Your task to perform on an android device: Clear all items from cart on ebay. Add "bose soundlink" to the cart on ebay Image 0: 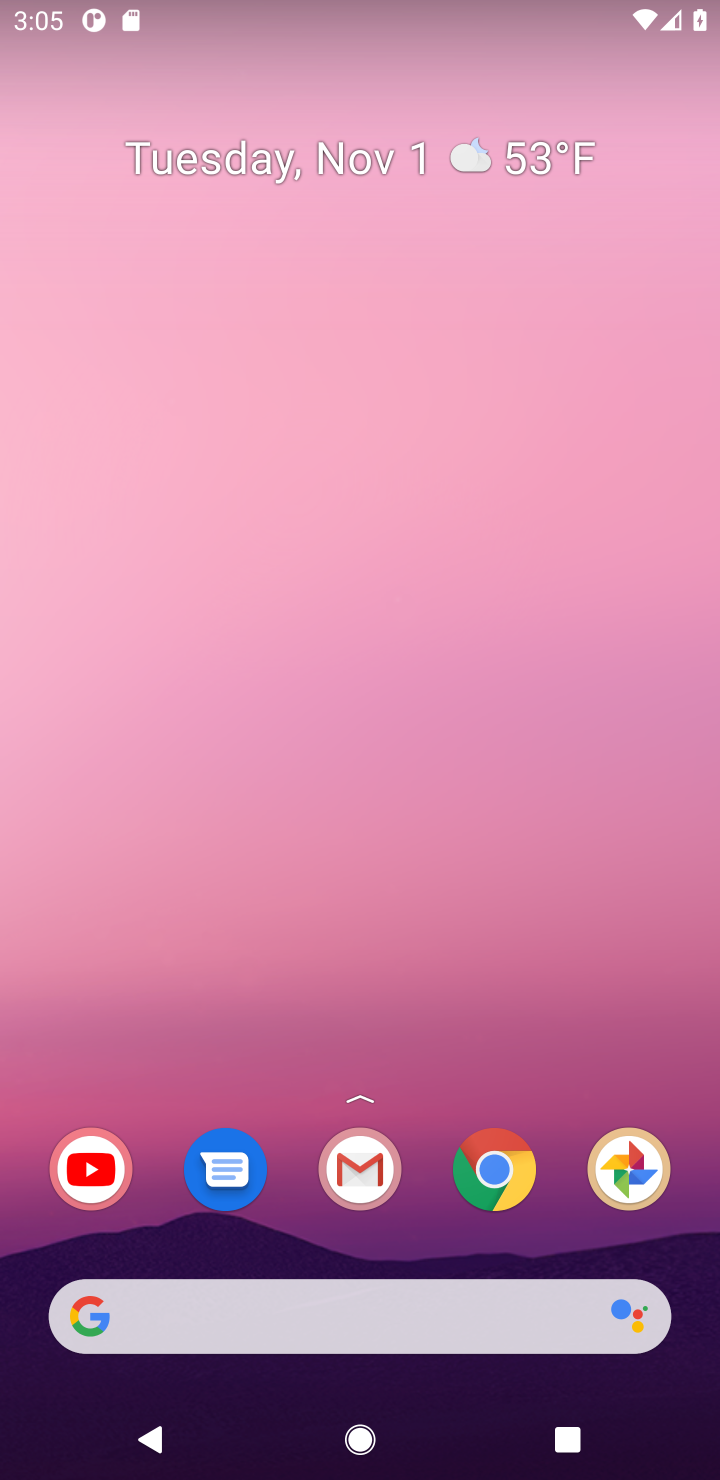
Step 0: press home button
Your task to perform on an android device: Clear all items from cart on ebay. Add "bose soundlink" to the cart on ebay Image 1: 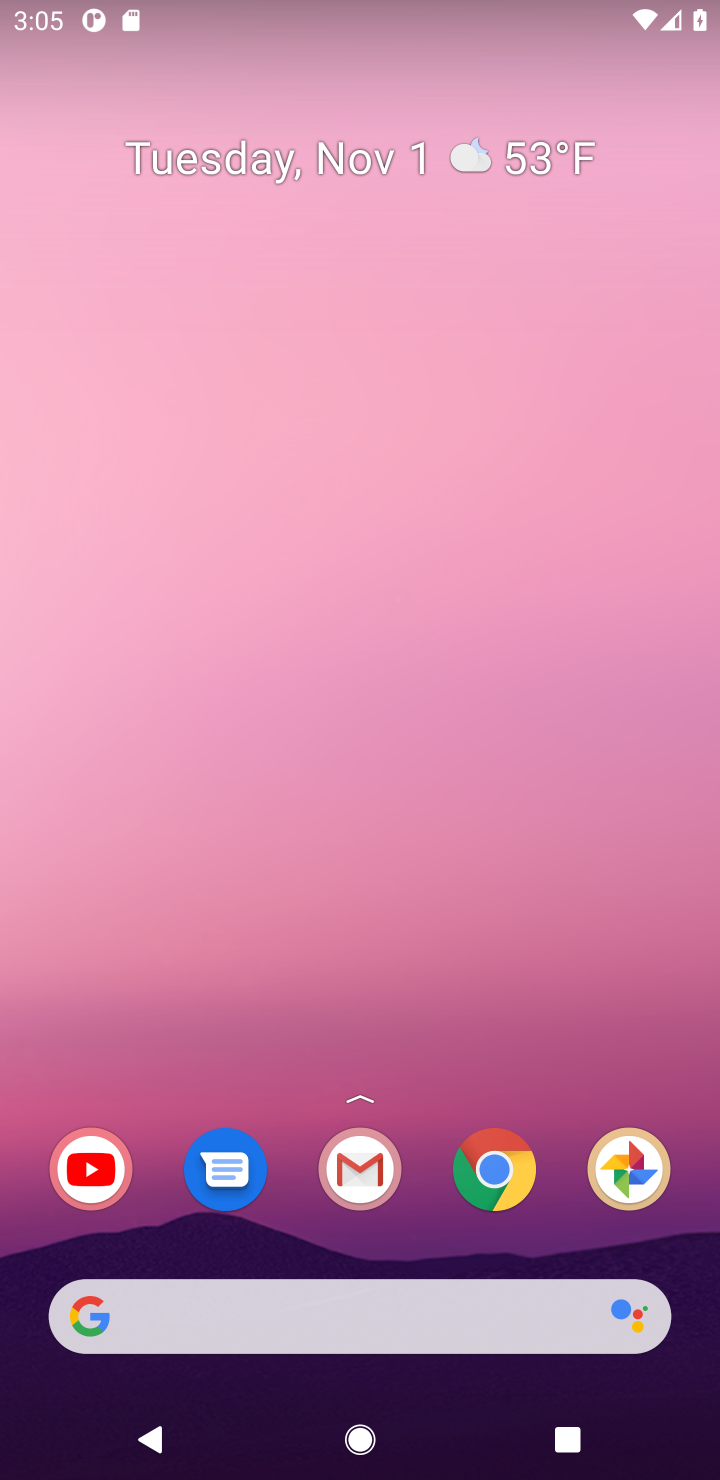
Step 1: click (414, 218)
Your task to perform on an android device: Clear all items from cart on ebay. Add "bose soundlink" to the cart on ebay Image 2: 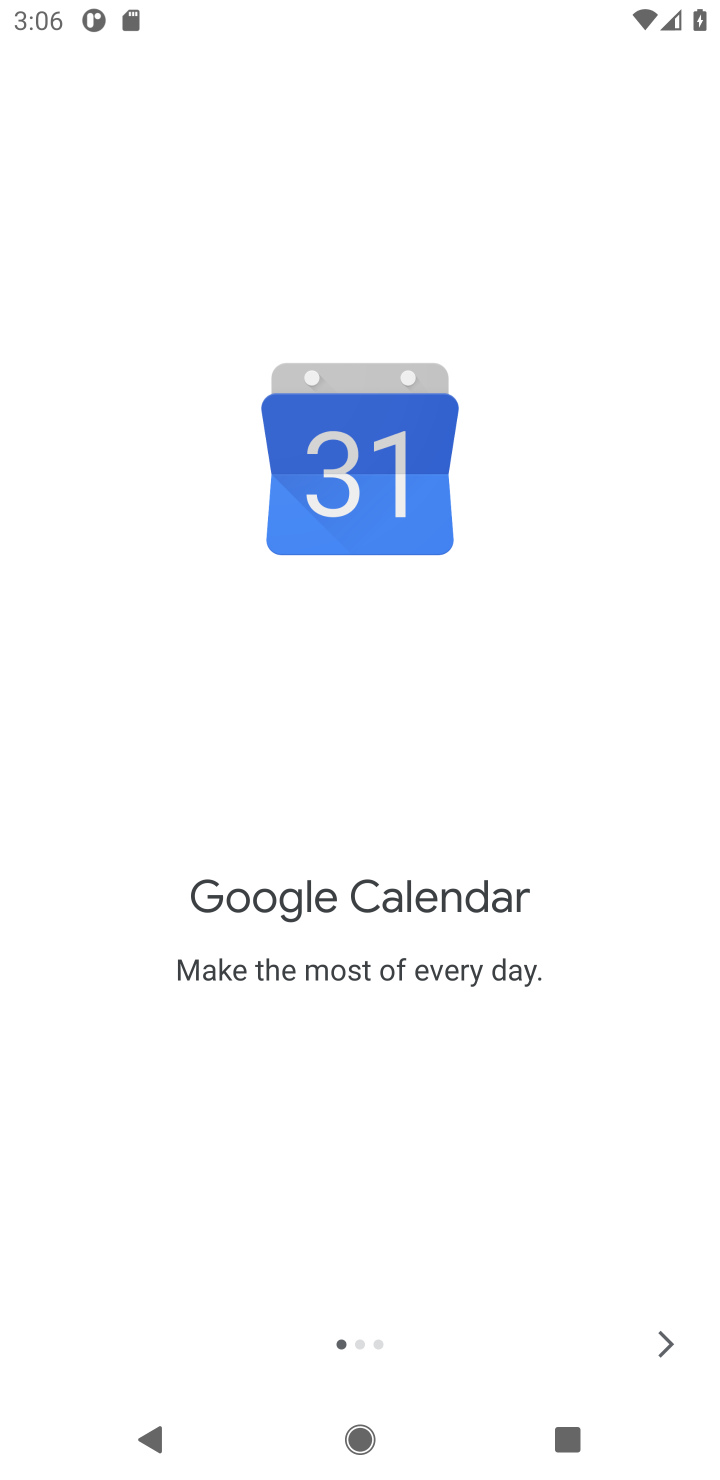
Step 2: press home button
Your task to perform on an android device: Clear all items from cart on ebay. Add "bose soundlink" to the cart on ebay Image 3: 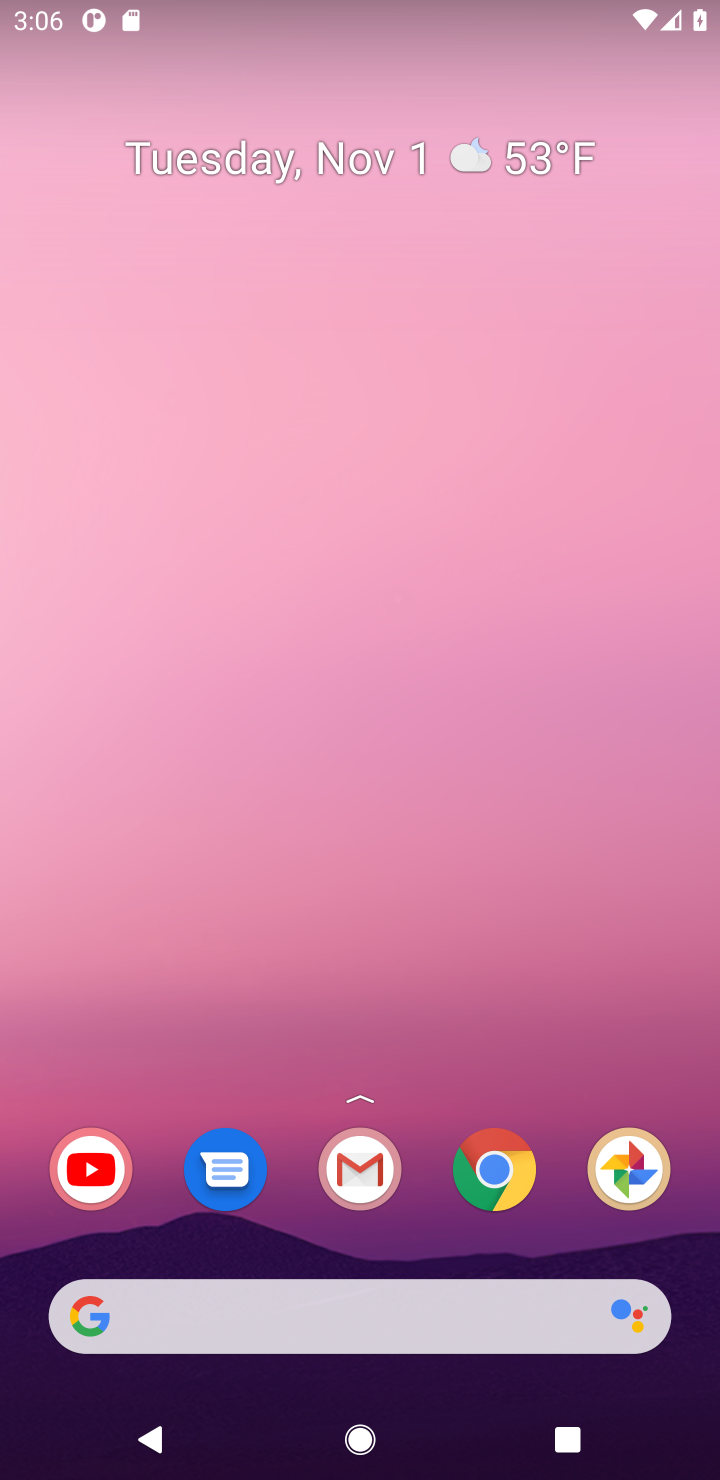
Step 3: drag from (429, 1231) to (481, 283)
Your task to perform on an android device: Clear all items from cart on ebay. Add "bose soundlink" to the cart on ebay Image 4: 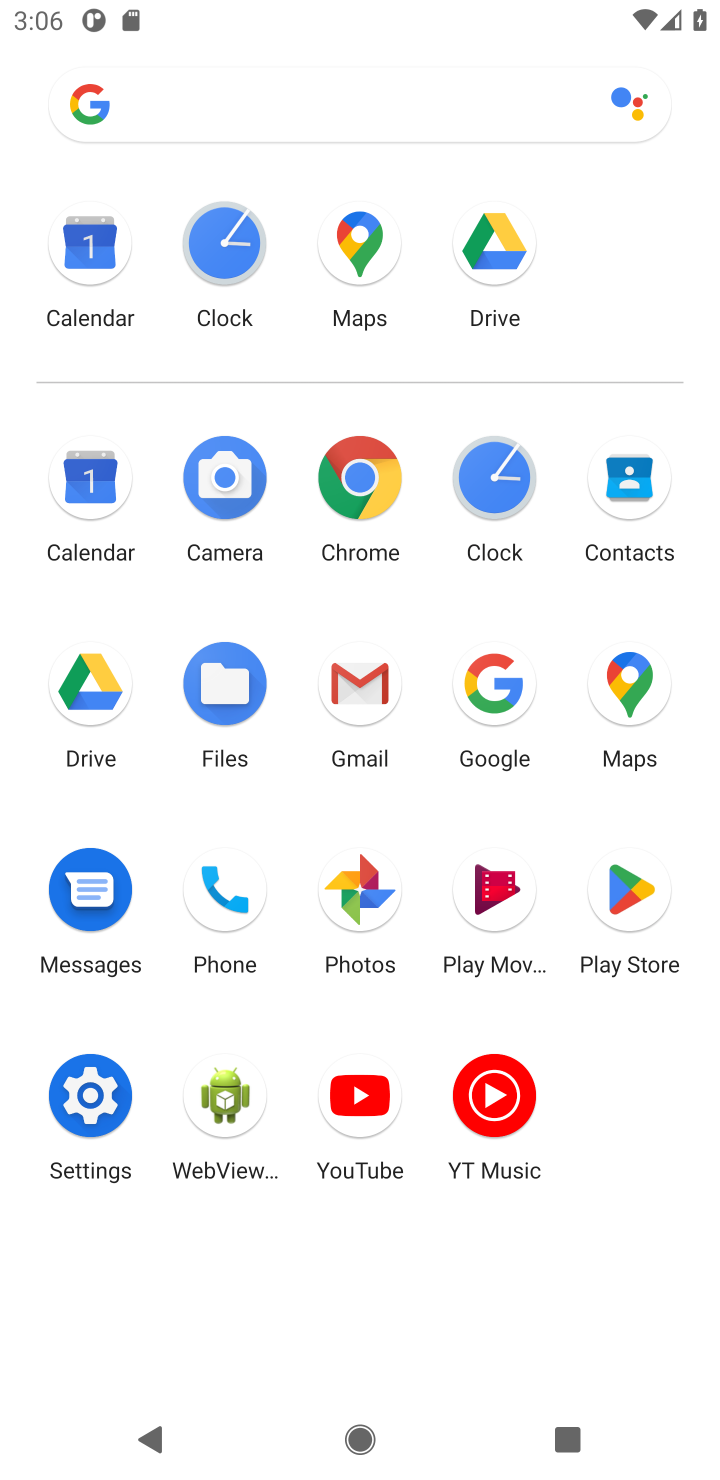
Step 4: click (361, 470)
Your task to perform on an android device: Clear all items from cart on ebay. Add "bose soundlink" to the cart on ebay Image 5: 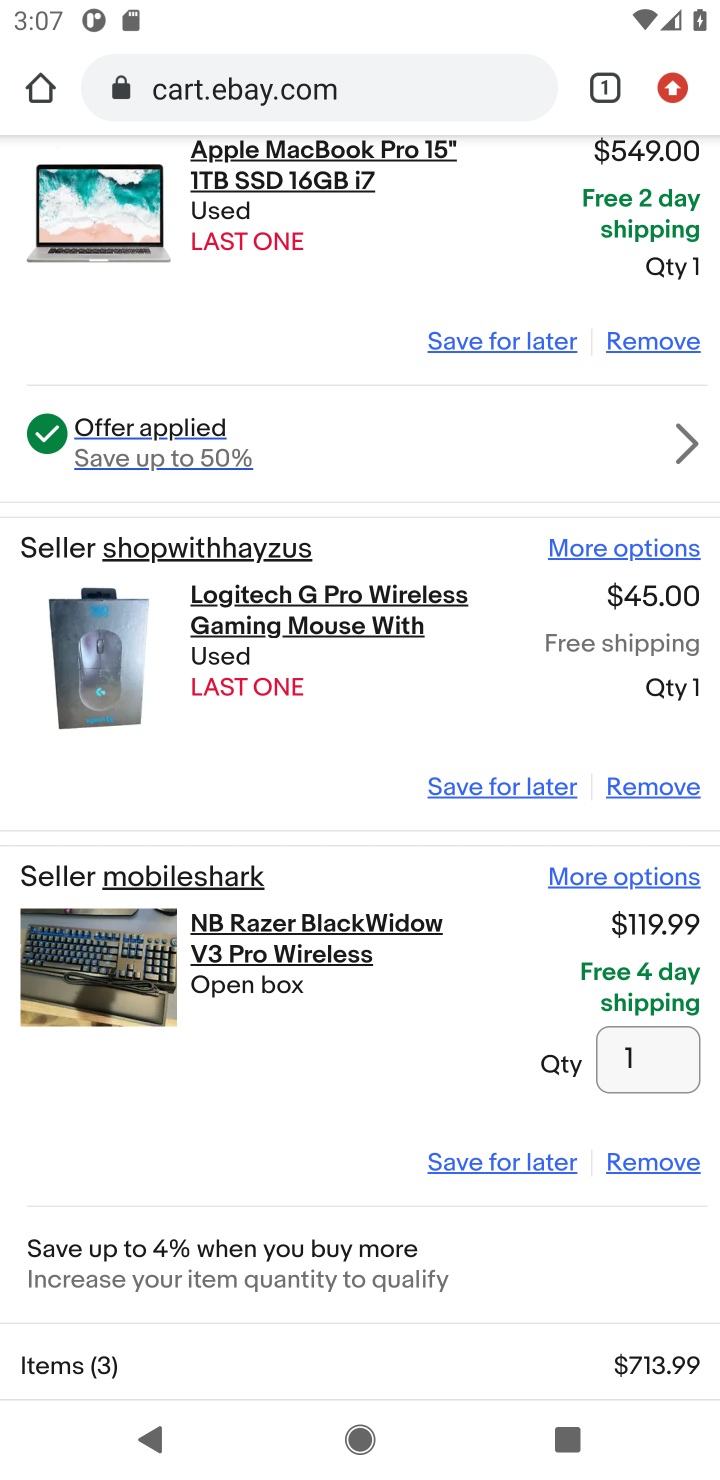
Step 5: drag from (413, 457) to (442, 1203)
Your task to perform on an android device: Clear all items from cart on ebay. Add "bose soundlink" to the cart on ebay Image 6: 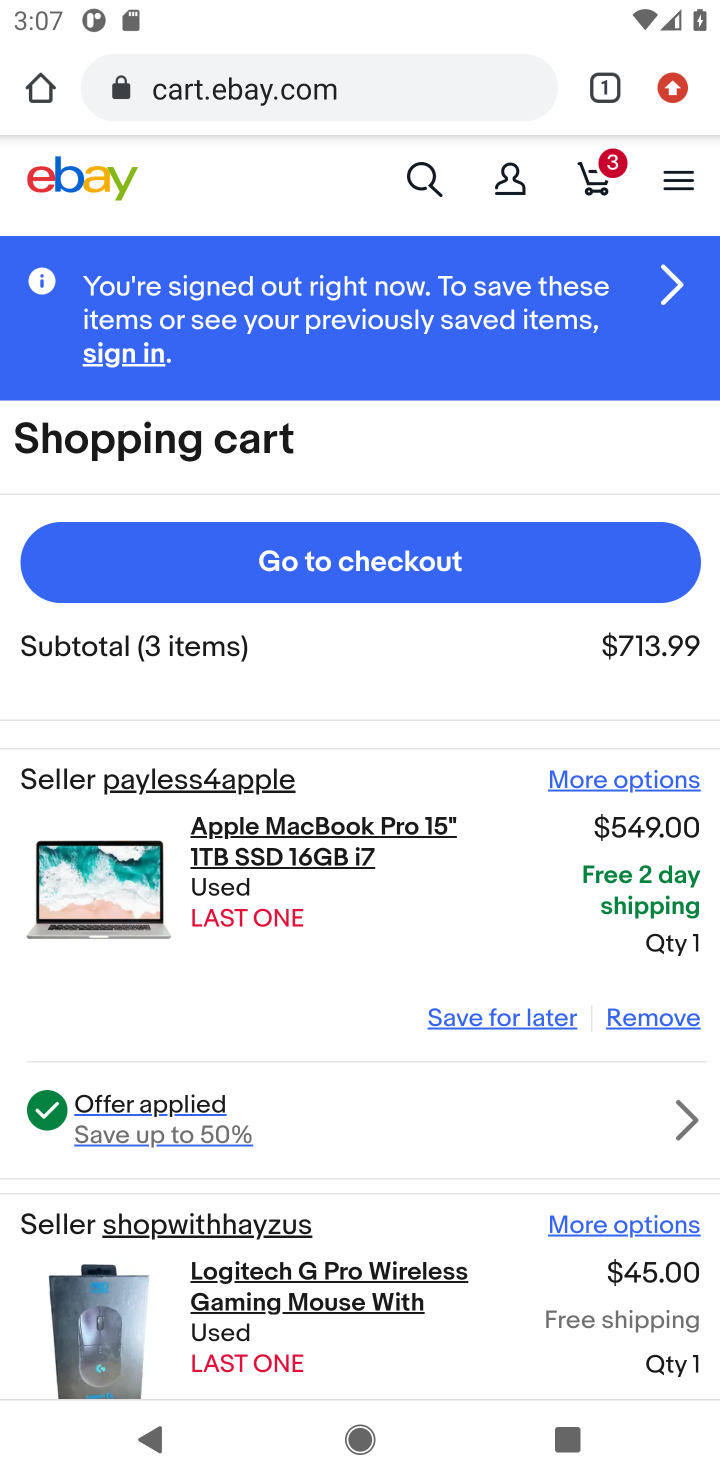
Step 6: click (416, 171)
Your task to perform on an android device: Clear all items from cart on ebay. Add "bose soundlink" to the cart on ebay Image 7: 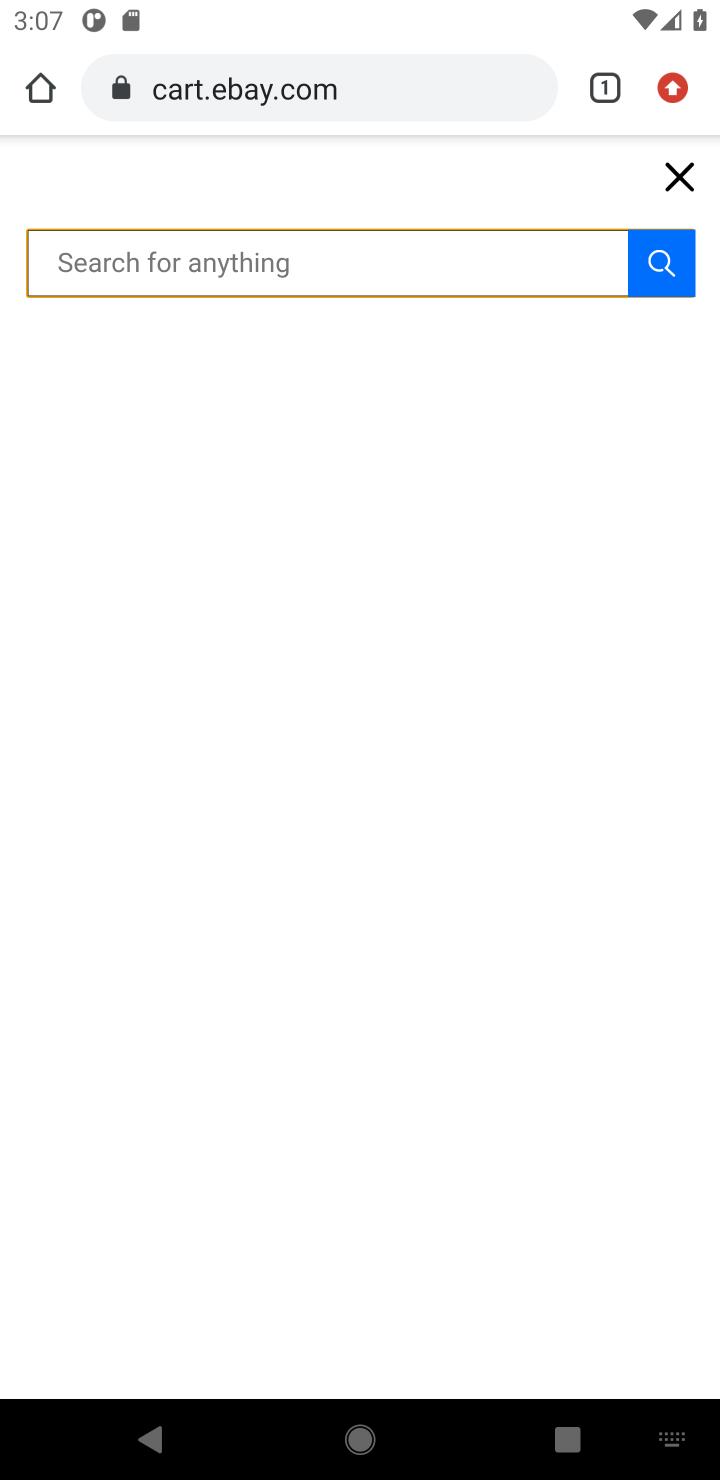
Step 7: click (689, 181)
Your task to perform on an android device: Clear all items from cart on ebay. Add "bose soundlink" to the cart on ebay Image 8: 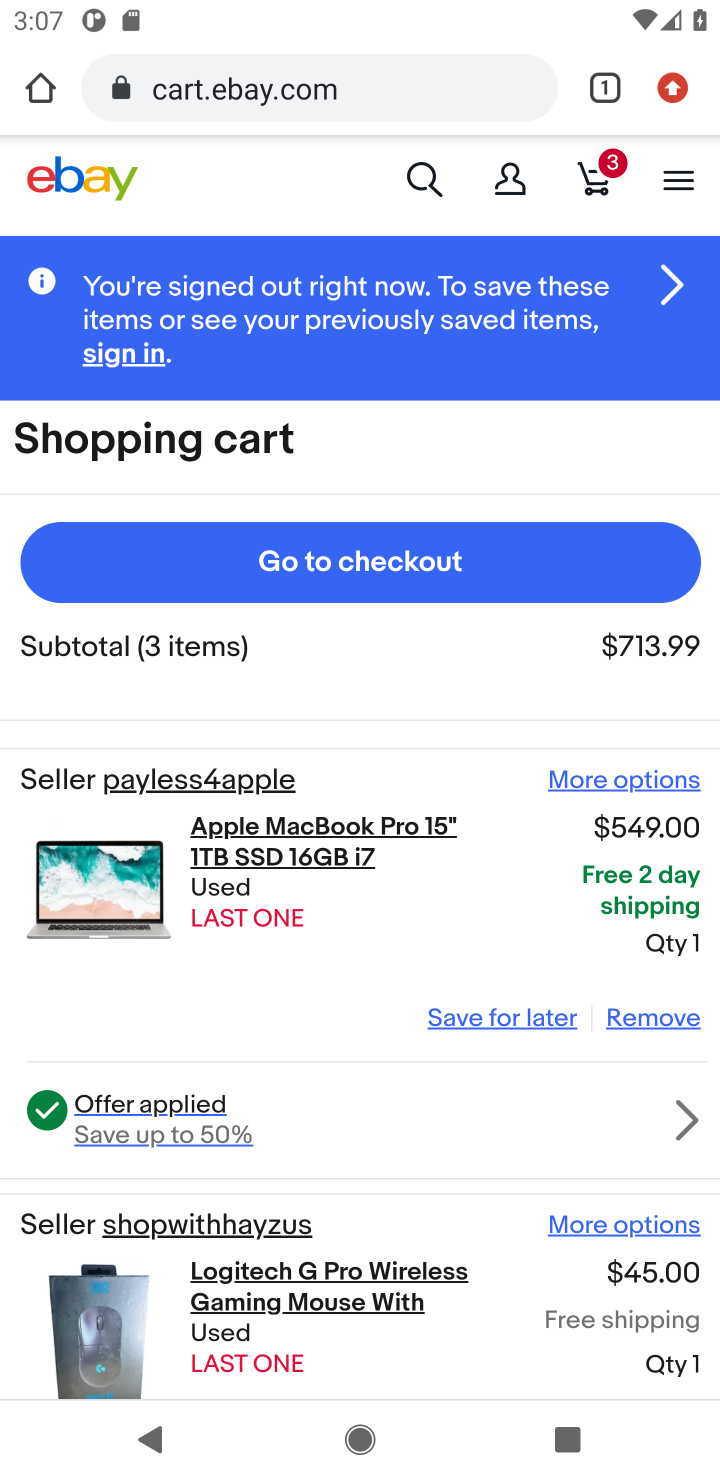
Step 8: click (598, 164)
Your task to perform on an android device: Clear all items from cart on ebay. Add "bose soundlink" to the cart on ebay Image 9: 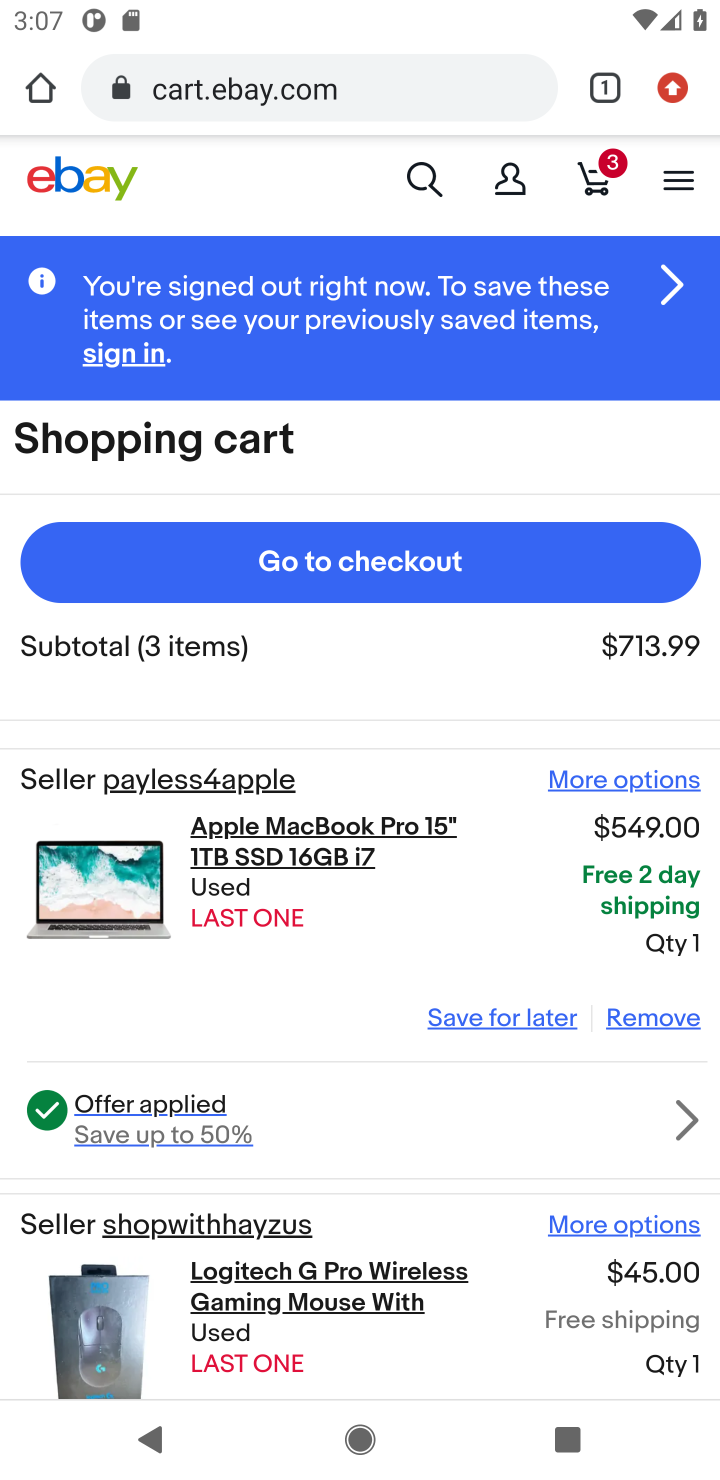
Step 9: click (676, 1003)
Your task to perform on an android device: Clear all items from cart on ebay. Add "bose soundlink" to the cart on ebay Image 10: 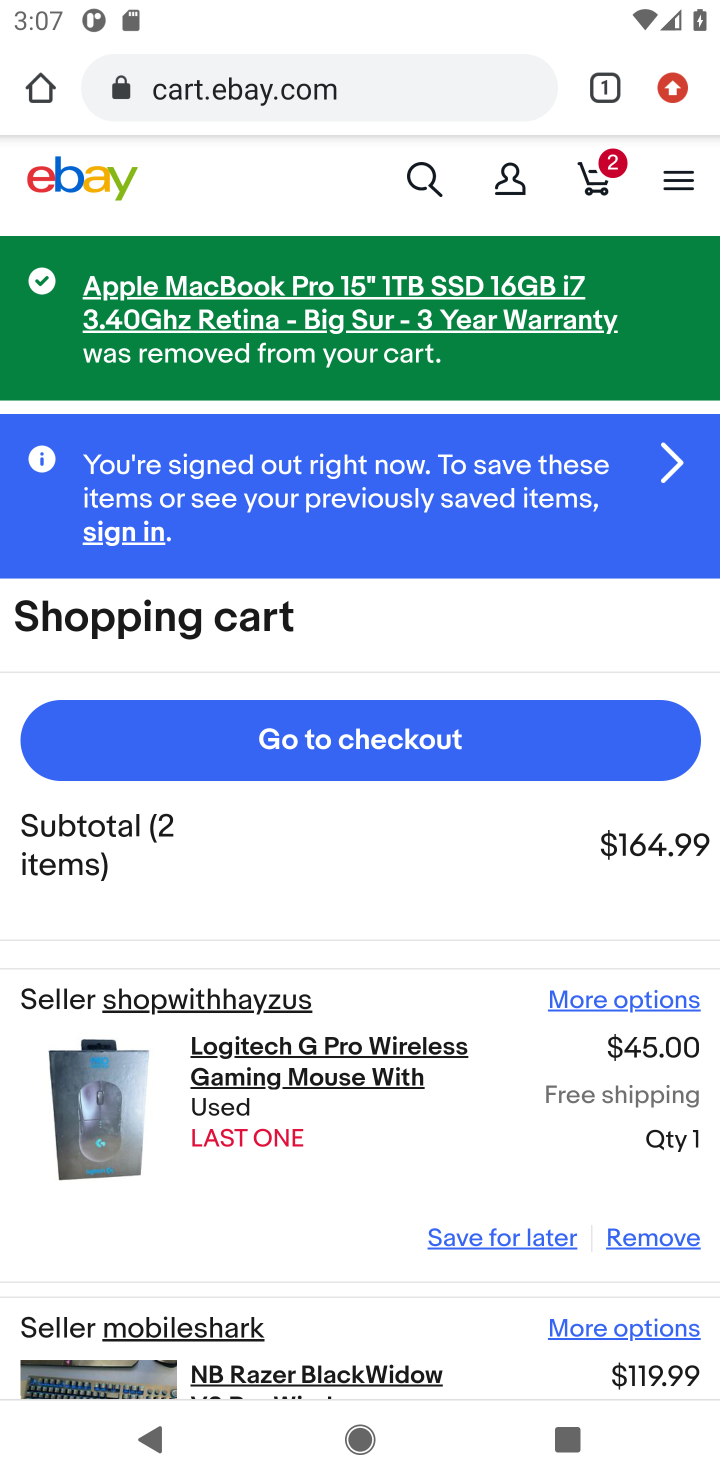
Step 10: click (642, 1238)
Your task to perform on an android device: Clear all items from cart on ebay. Add "bose soundlink" to the cart on ebay Image 11: 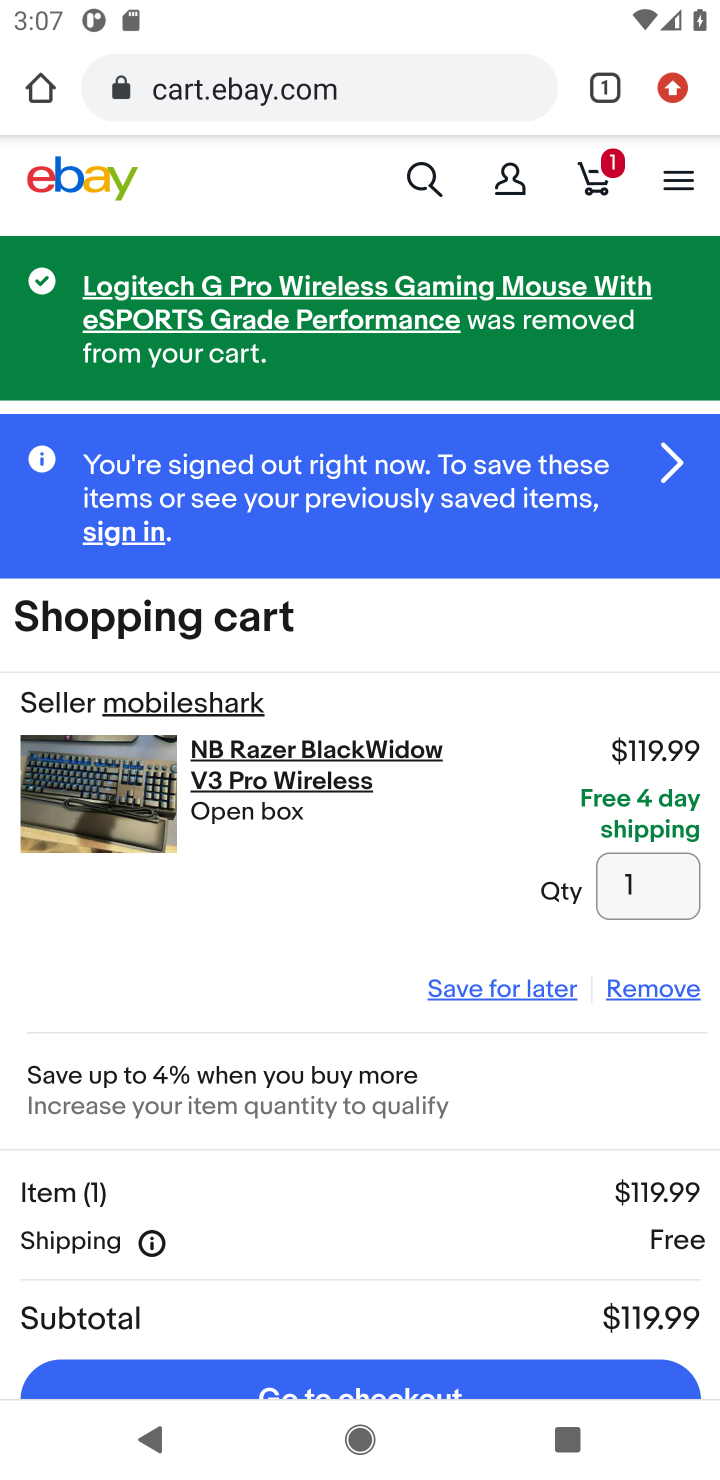
Step 11: click (646, 994)
Your task to perform on an android device: Clear all items from cart on ebay. Add "bose soundlink" to the cart on ebay Image 12: 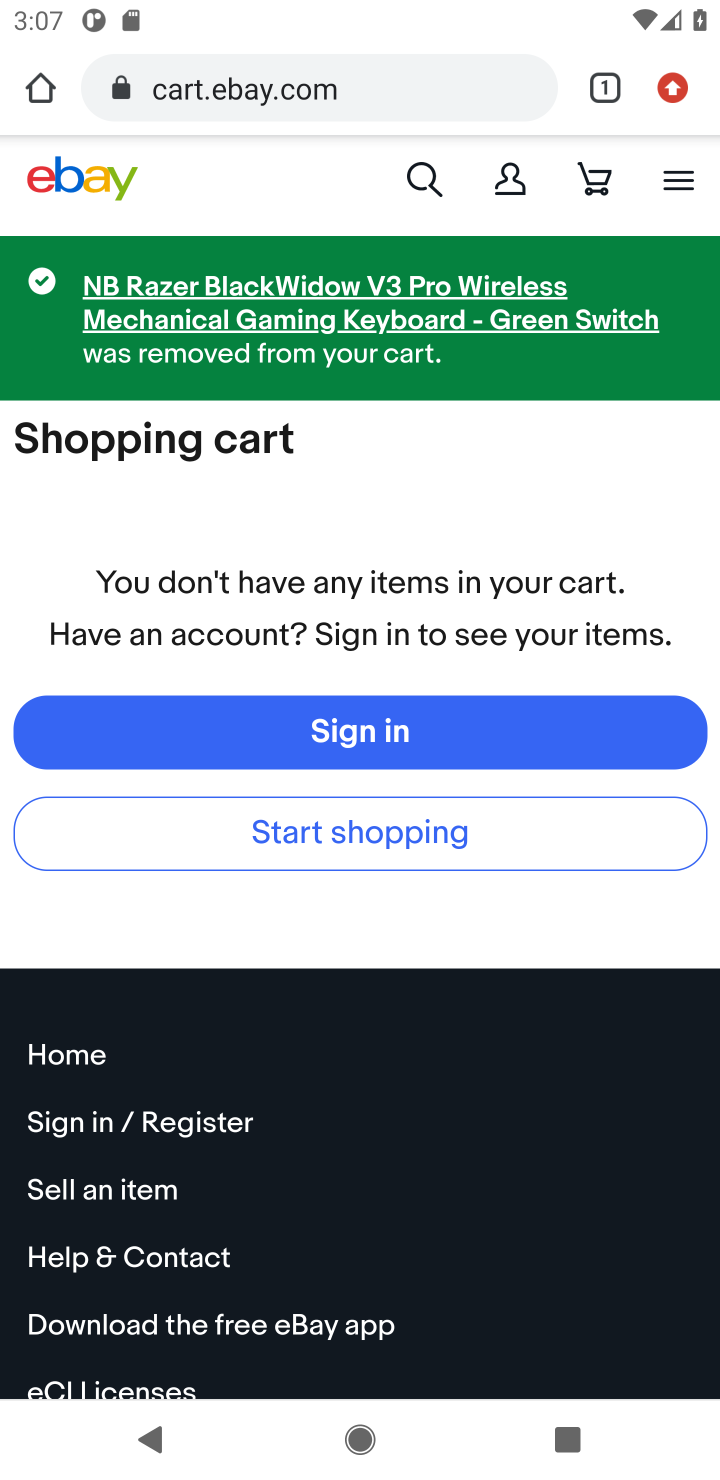
Step 12: click (416, 189)
Your task to perform on an android device: Clear all items from cart on ebay. Add "bose soundlink" to the cart on ebay Image 13: 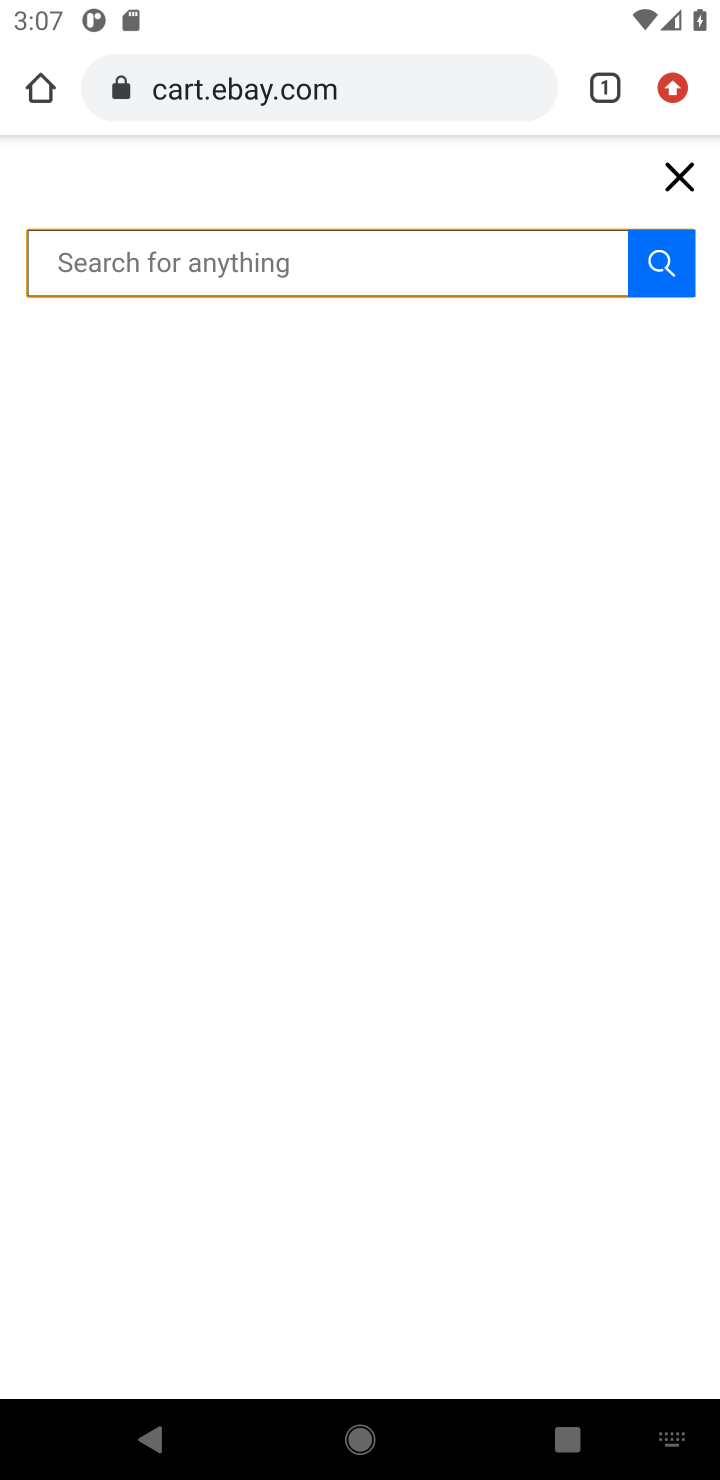
Step 13: click (93, 256)
Your task to perform on an android device: Clear all items from cart on ebay. Add "bose soundlink" to the cart on ebay Image 14: 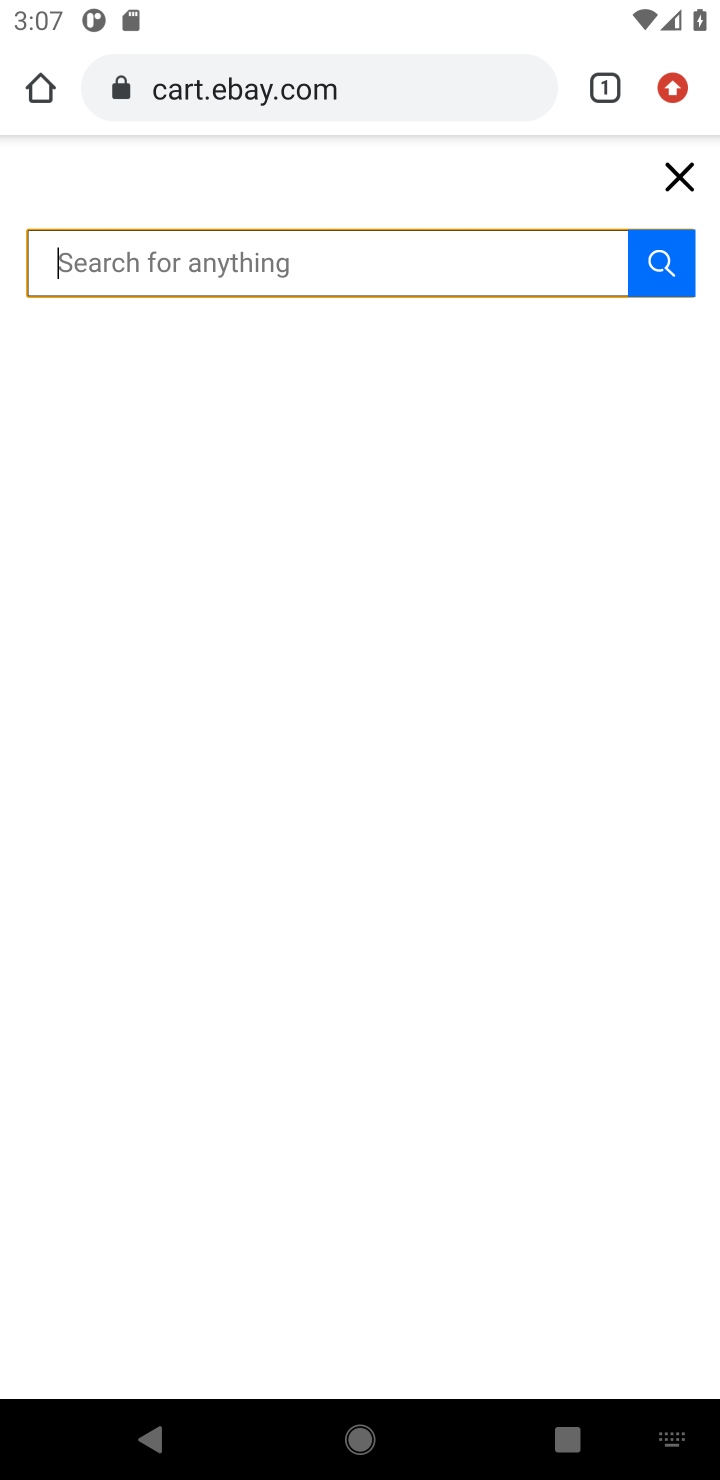
Step 14: type "bose soundlink"
Your task to perform on an android device: Clear all items from cart on ebay. Add "bose soundlink" to the cart on ebay Image 15: 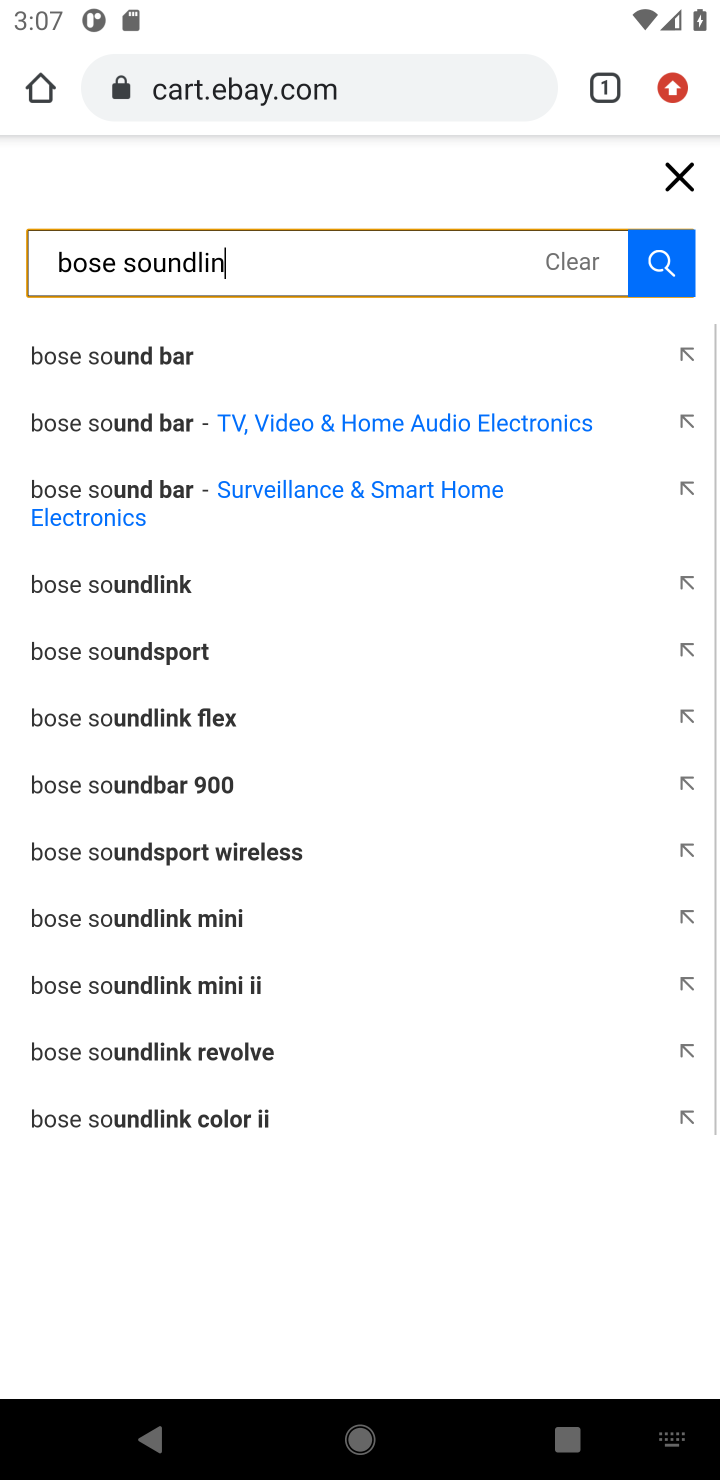
Step 15: type ""
Your task to perform on an android device: Clear all items from cart on ebay. Add "bose soundlink" to the cart on ebay Image 16: 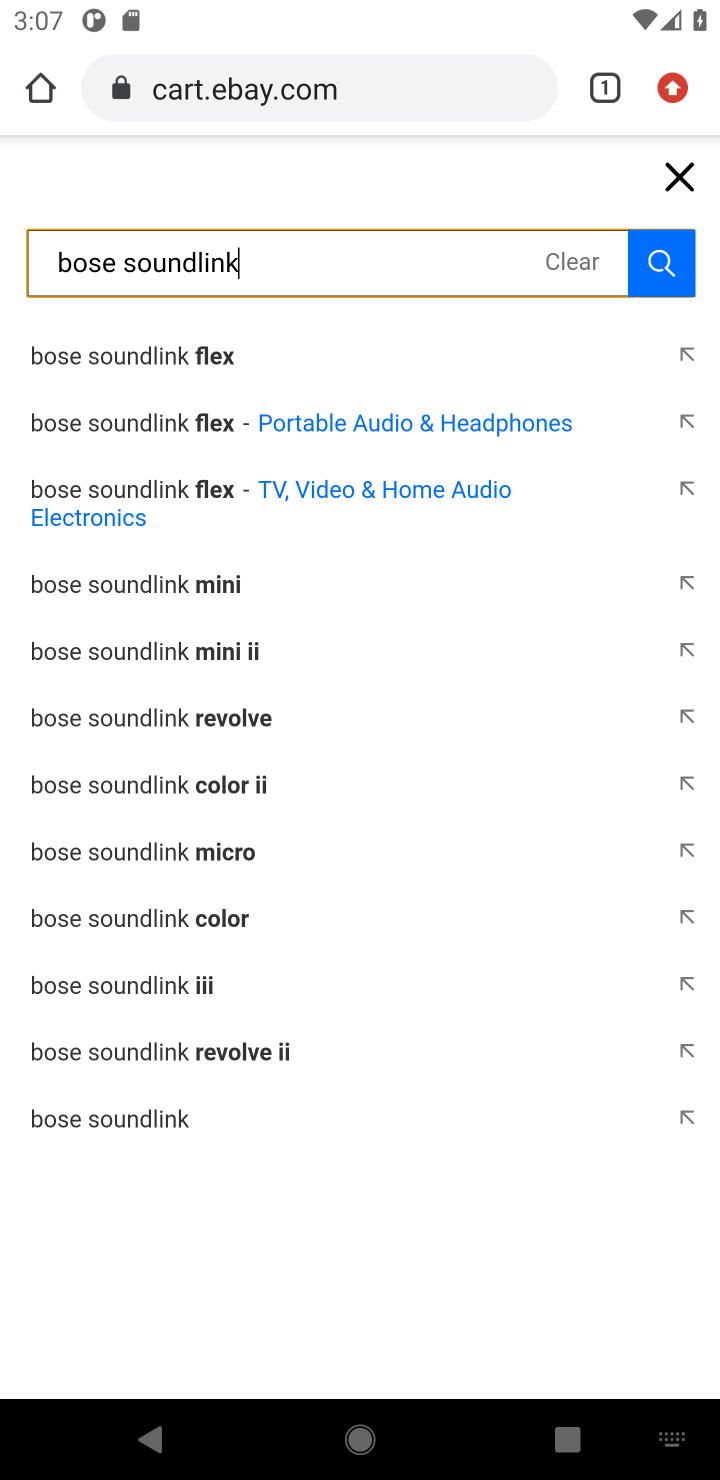
Step 16: click (199, 504)
Your task to perform on an android device: Clear all items from cart on ebay. Add "bose soundlink" to the cart on ebay Image 17: 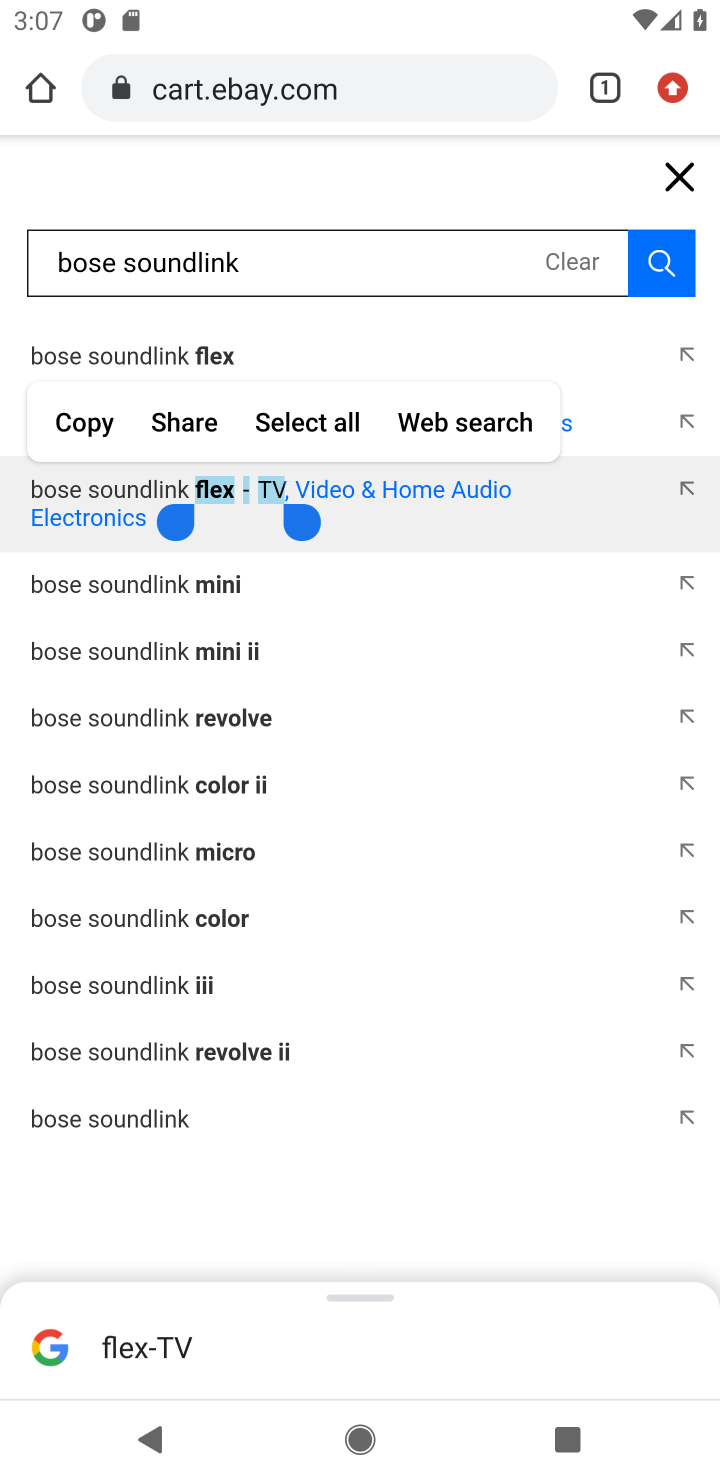
Step 17: click (76, 524)
Your task to perform on an android device: Clear all items from cart on ebay. Add "bose soundlink" to the cart on ebay Image 18: 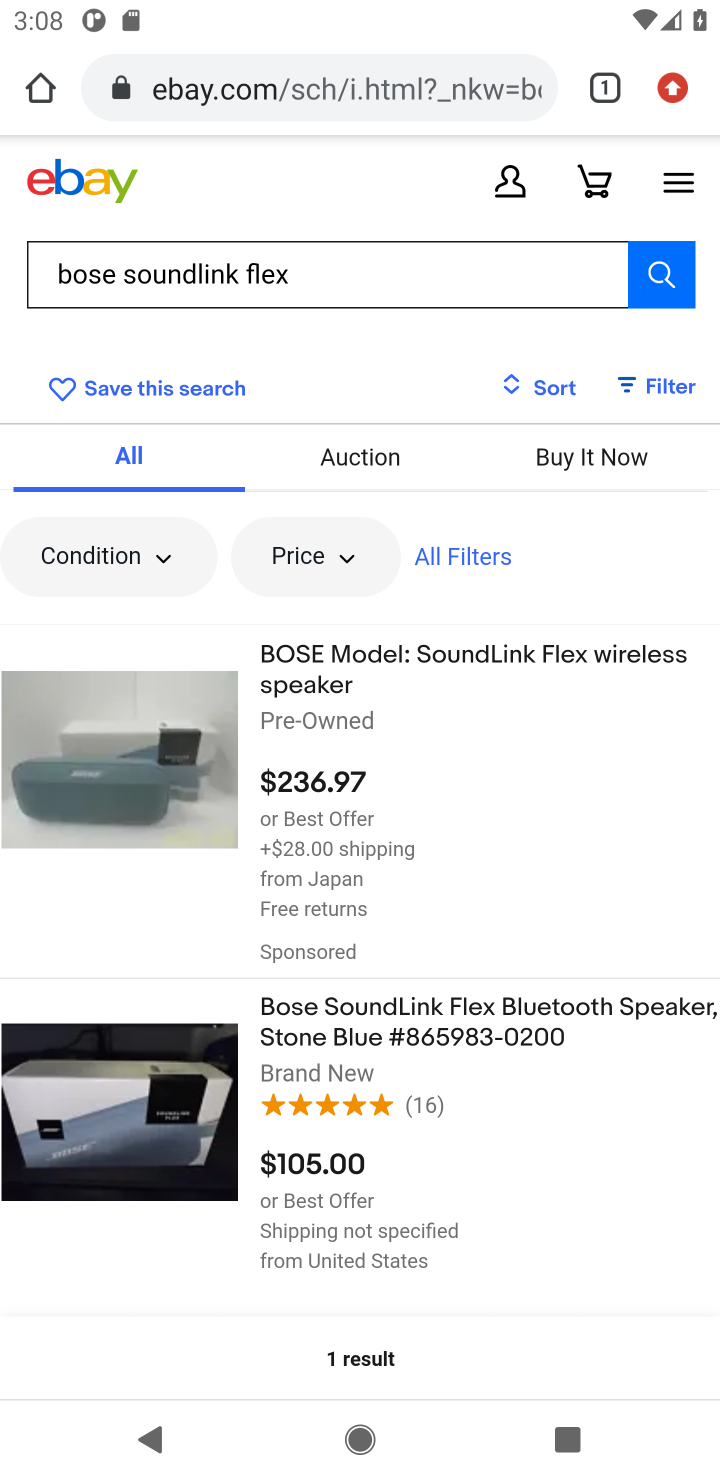
Step 18: click (416, 730)
Your task to perform on an android device: Clear all items from cart on ebay. Add "bose soundlink" to the cart on ebay Image 19: 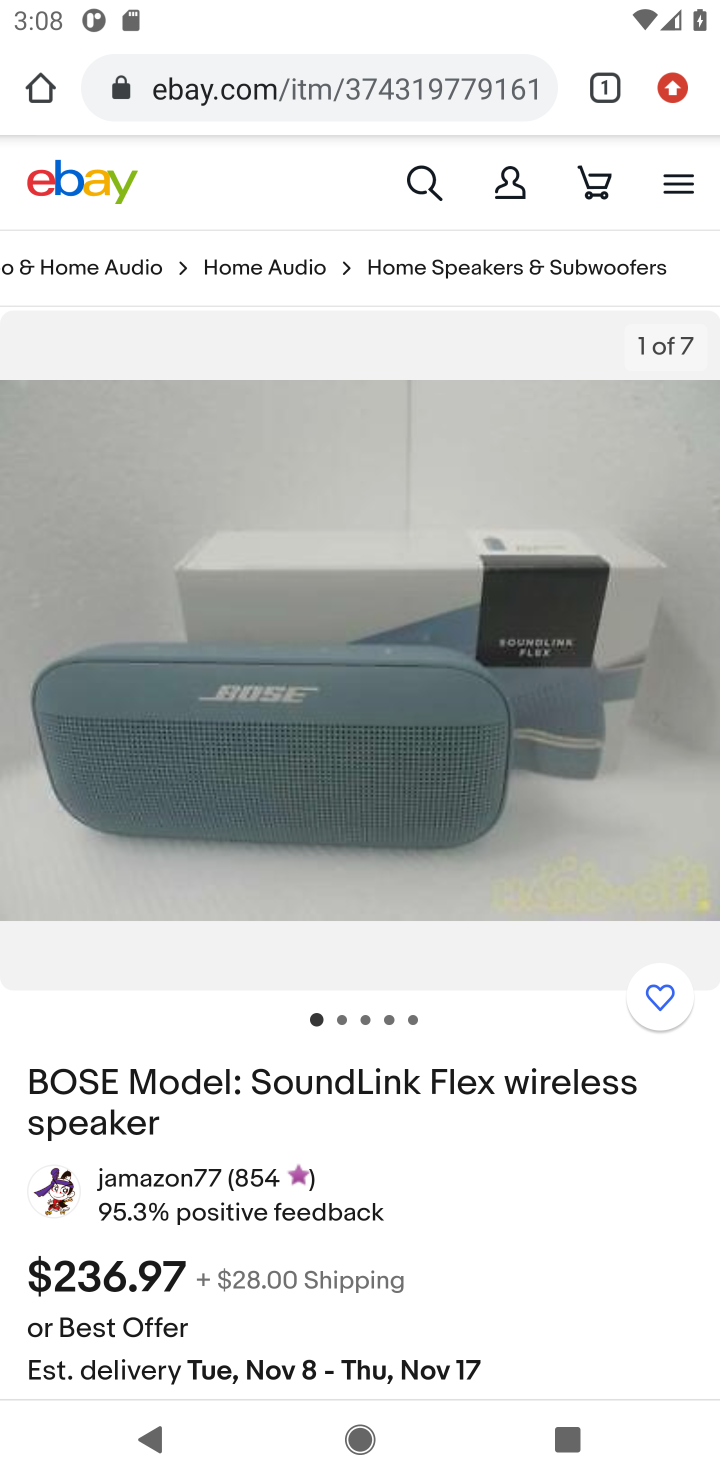
Step 19: drag from (456, 1244) to (424, 465)
Your task to perform on an android device: Clear all items from cart on ebay. Add "bose soundlink" to the cart on ebay Image 20: 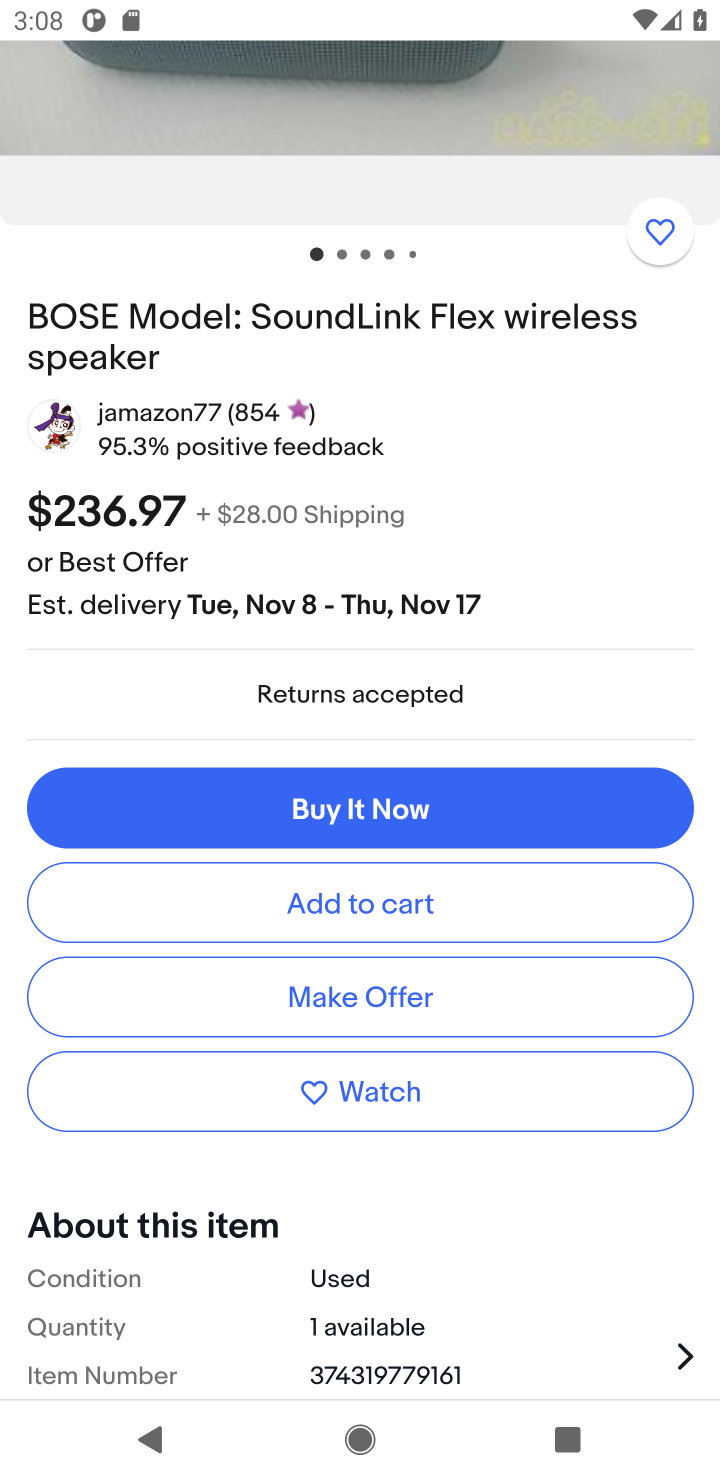
Step 20: click (374, 900)
Your task to perform on an android device: Clear all items from cart on ebay. Add "bose soundlink" to the cart on ebay Image 21: 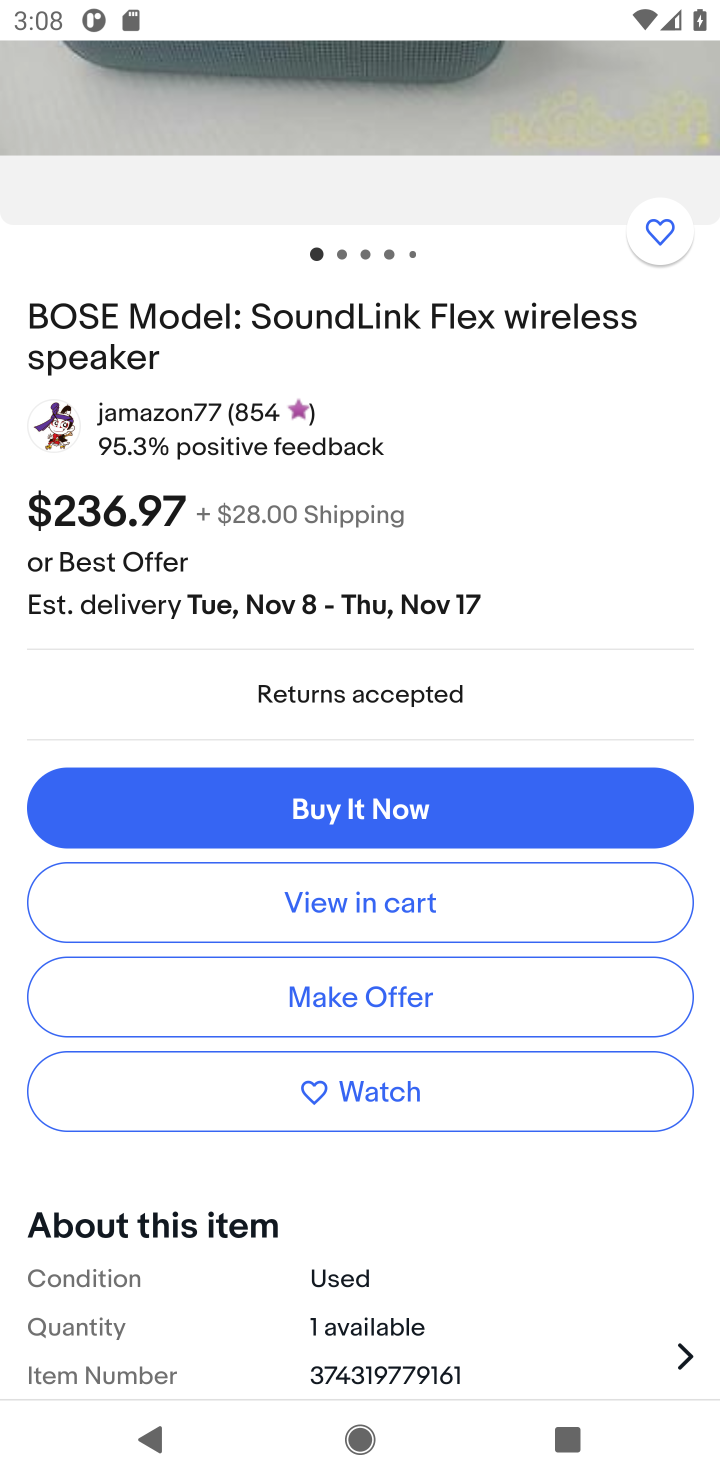
Step 21: click (353, 904)
Your task to perform on an android device: Clear all items from cart on ebay. Add "bose soundlink" to the cart on ebay Image 22: 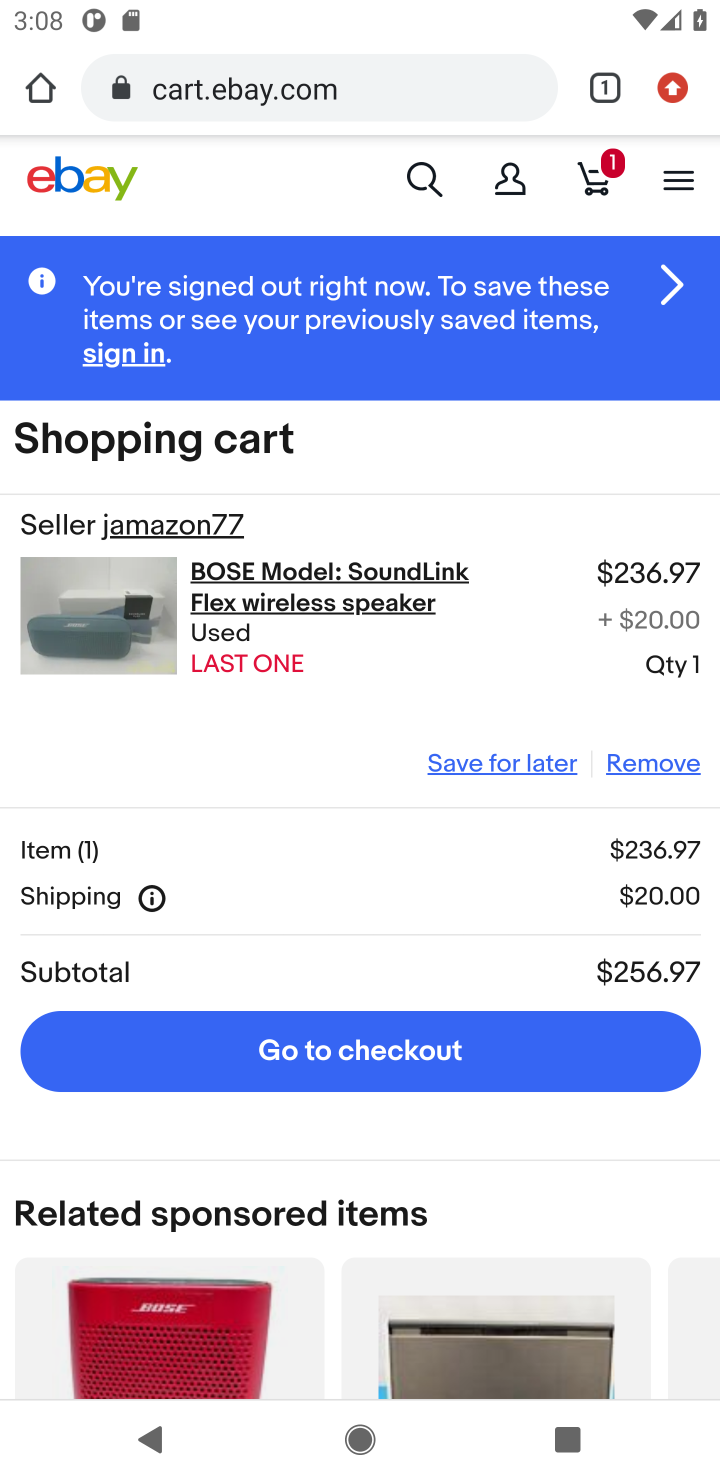
Step 22: click (340, 1062)
Your task to perform on an android device: Clear all items from cart on ebay. Add "bose soundlink" to the cart on ebay Image 23: 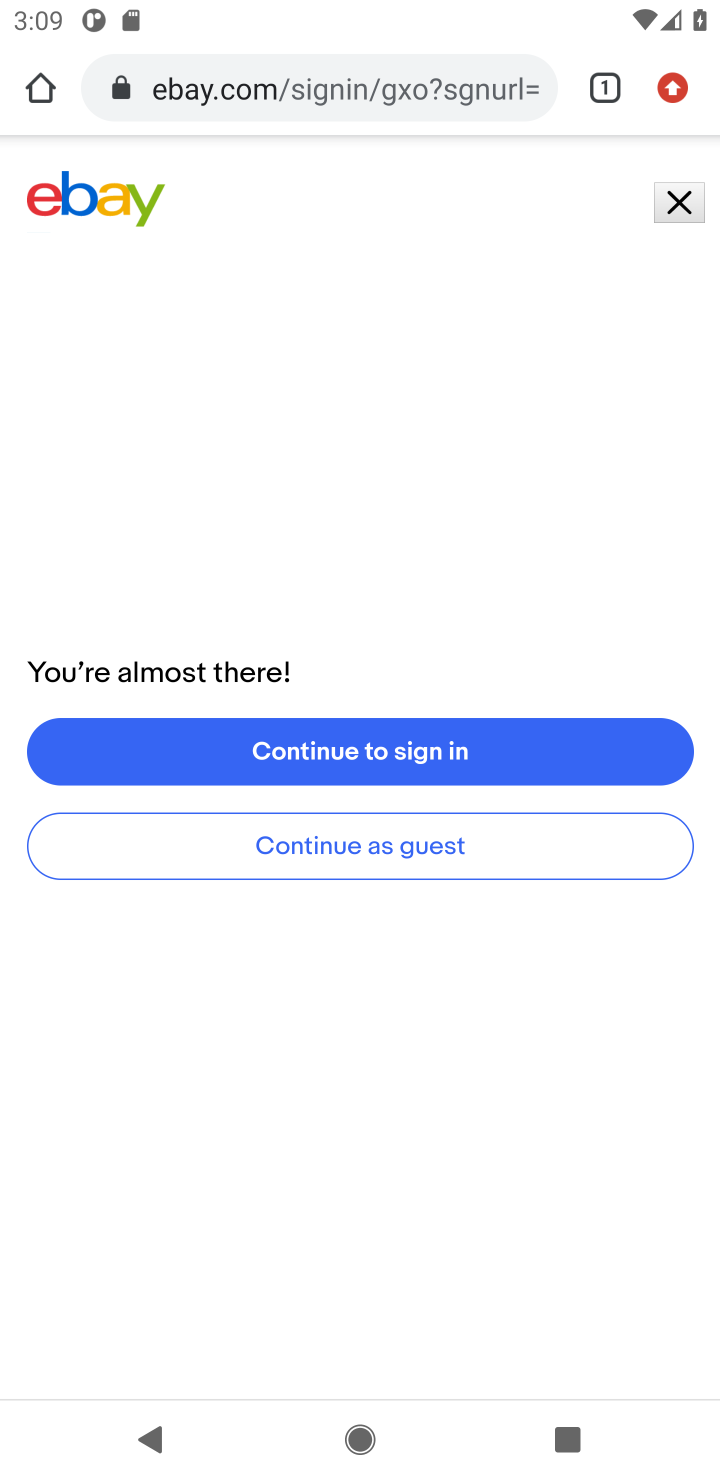
Step 23: task complete